Your task to perform on an android device: set the timer Image 0: 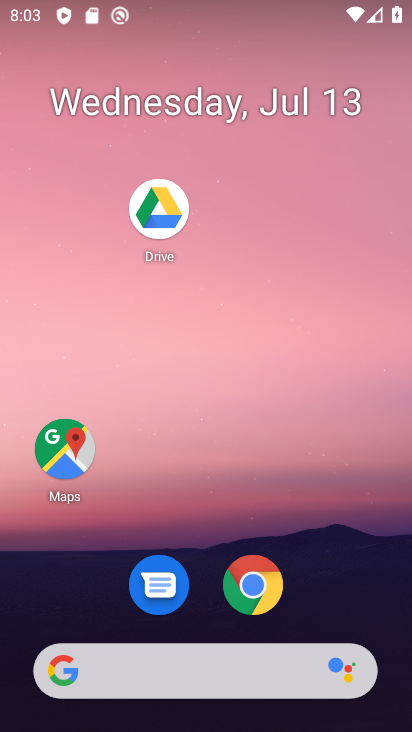
Step 0: drag from (186, 667) to (262, 86)
Your task to perform on an android device: set the timer Image 1: 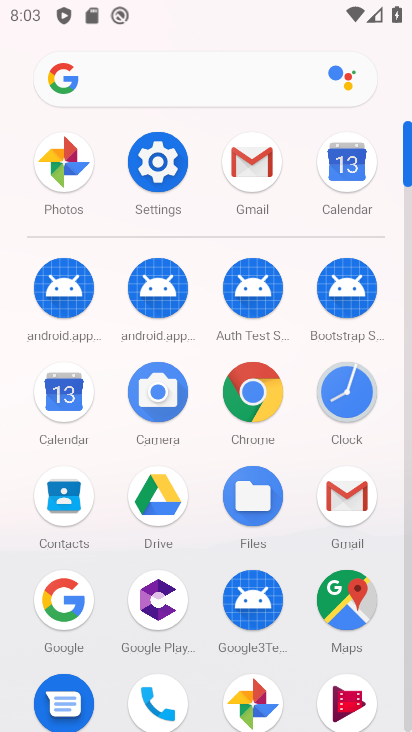
Step 1: click (343, 398)
Your task to perform on an android device: set the timer Image 2: 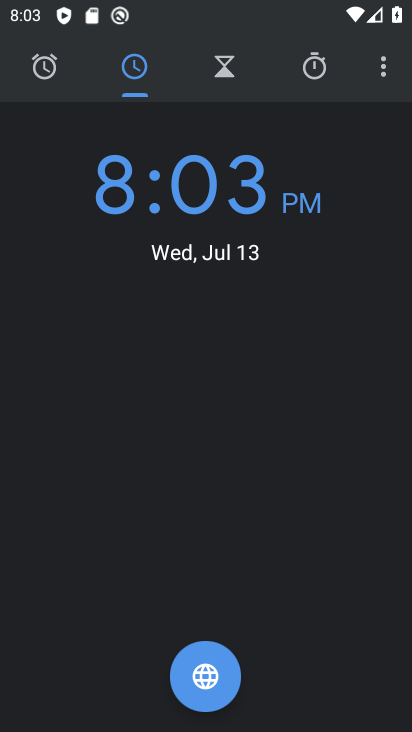
Step 2: click (226, 60)
Your task to perform on an android device: set the timer Image 3: 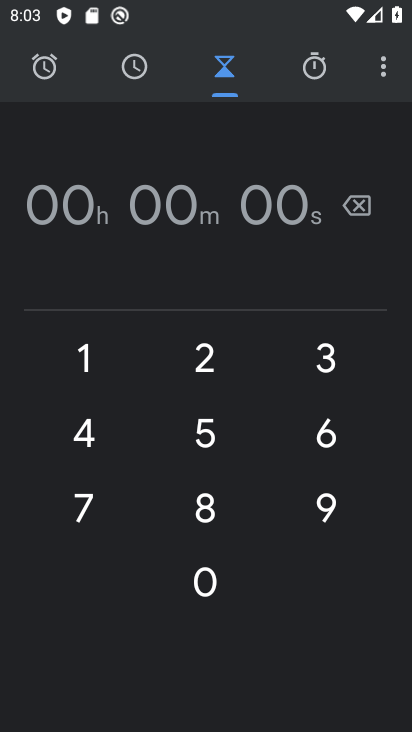
Step 3: click (82, 366)
Your task to perform on an android device: set the timer Image 4: 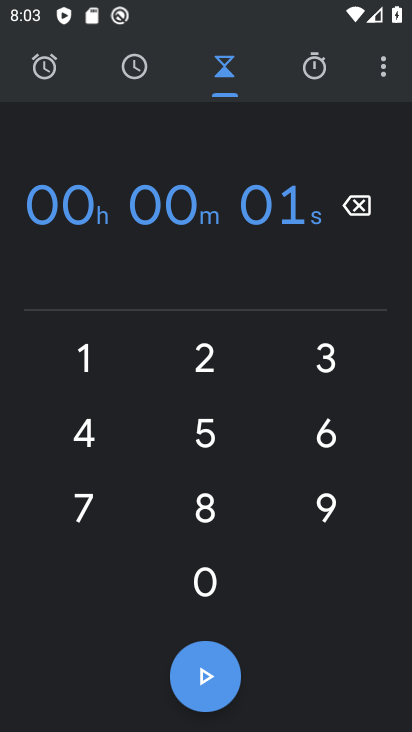
Step 4: click (223, 370)
Your task to perform on an android device: set the timer Image 5: 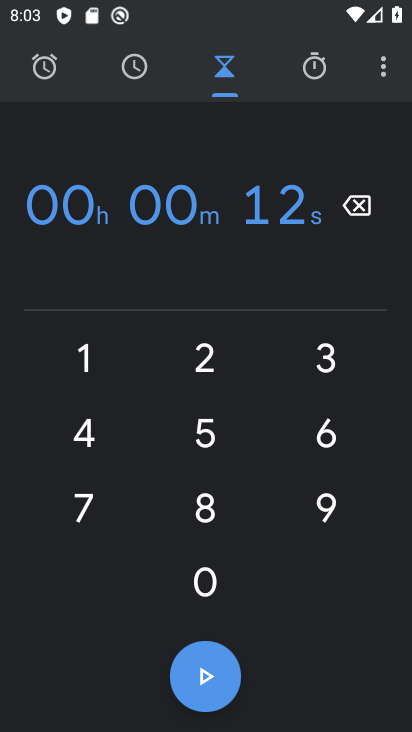
Step 5: click (224, 668)
Your task to perform on an android device: set the timer Image 6: 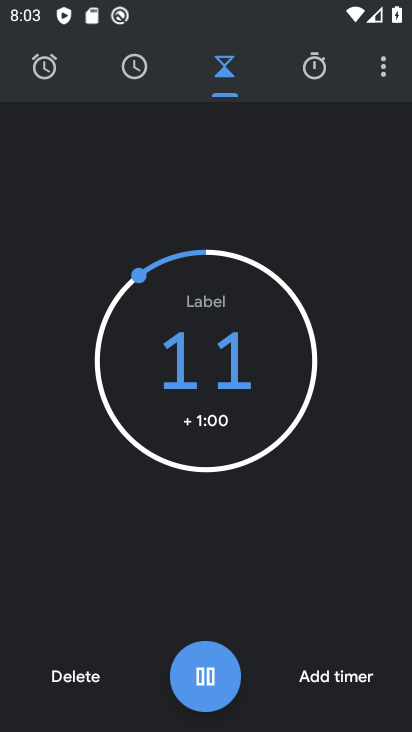
Step 6: click (218, 668)
Your task to perform on an android device: set the timer Image 7: 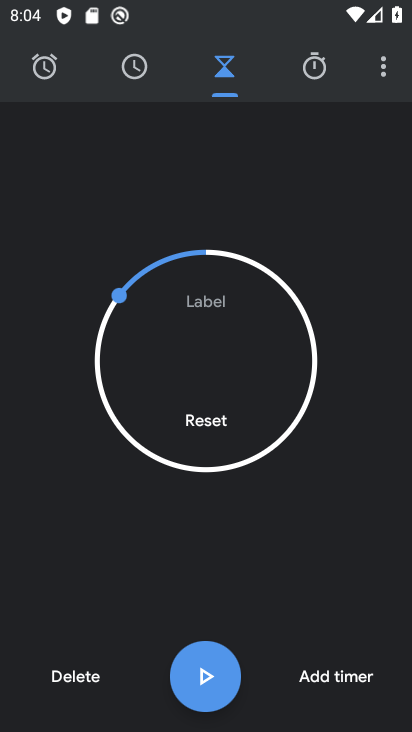
Step 7: task complete